Your task to perform on an android device: Open the map Image 0: 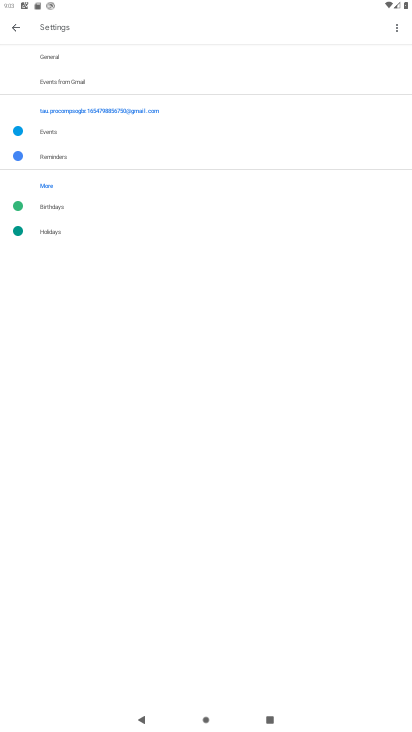
Step 0: press home button
Your task to perform on an android device: Open the map Image 1: 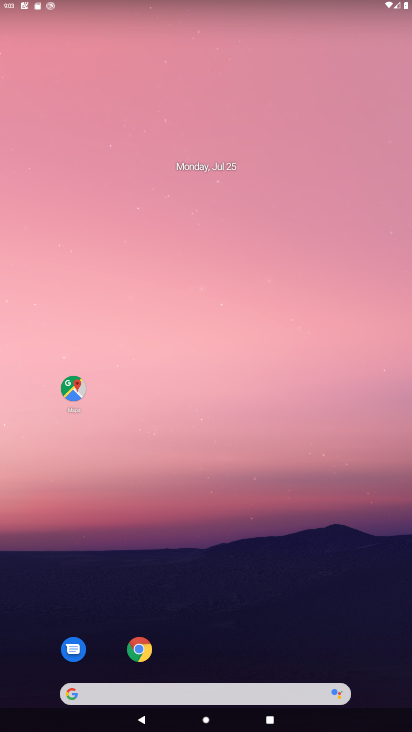
Step 1: click (74, 399)
Your task to perform on an android device: Open the map Image 2: 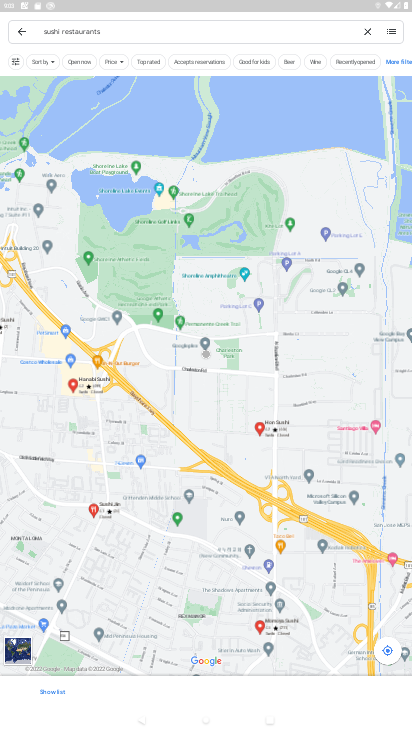
Step 2: task complete